Your task to perform on an android device: Go to display settings Image 0: 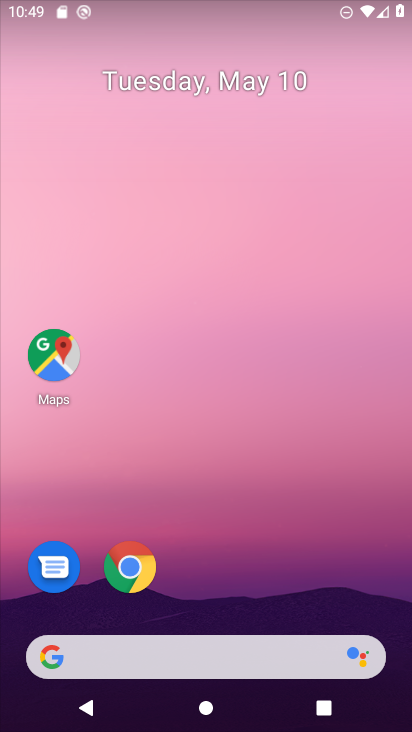
Step 0: drag from (186, 597) to (267, 329)
Your task to perform on an android device: Go to display settings Image 1: 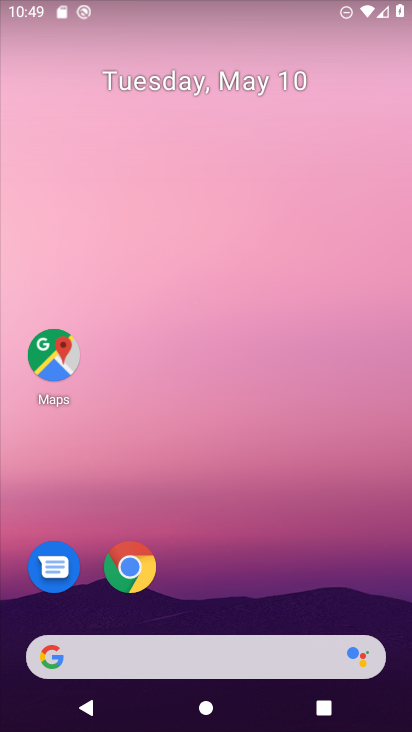
Step 1: drag from (243, 593) to (274, 317)
Your task to perform on an android device: Go to display settings Image 2: 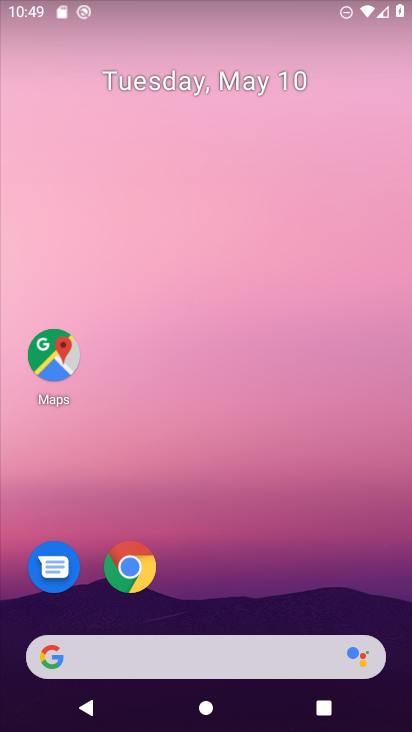
Step 2: drag from (242, 629) to (296, 181)
Your task to perform on an android device: Go to display settings Image 3: 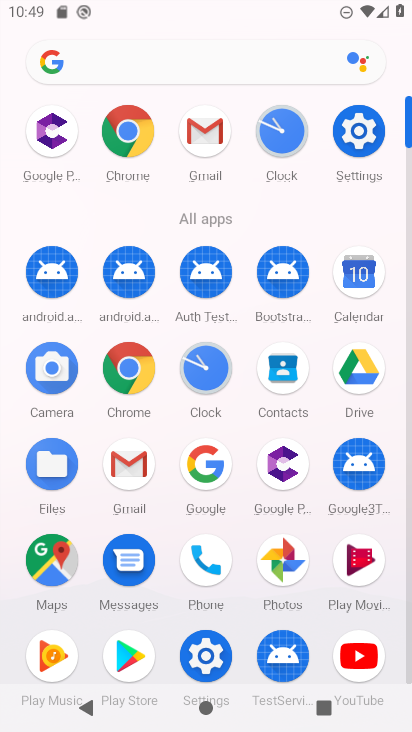
Step 3: click (345, 148)
Your task to perform on an android device: Go to display settings Image 4: 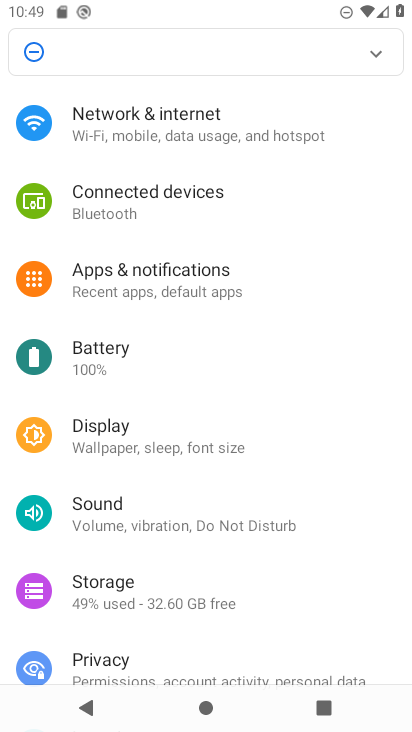
Step 4: click (154, 439)
Your task to perform on an android device: Go to display settings Image 5: 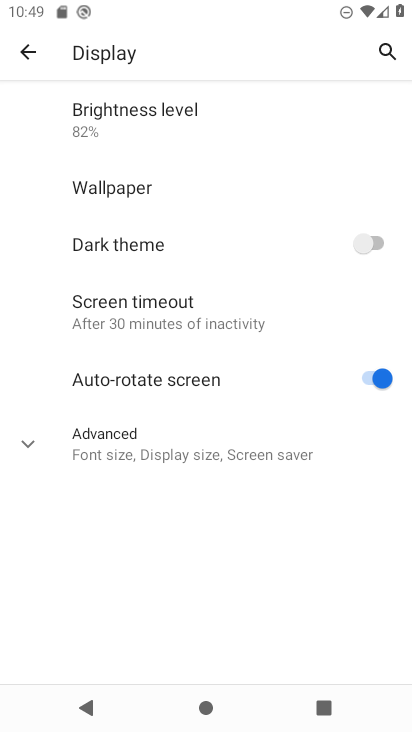
Step 5: task complete